Your task to perform on an android device: toggle airplane mode Image 0: 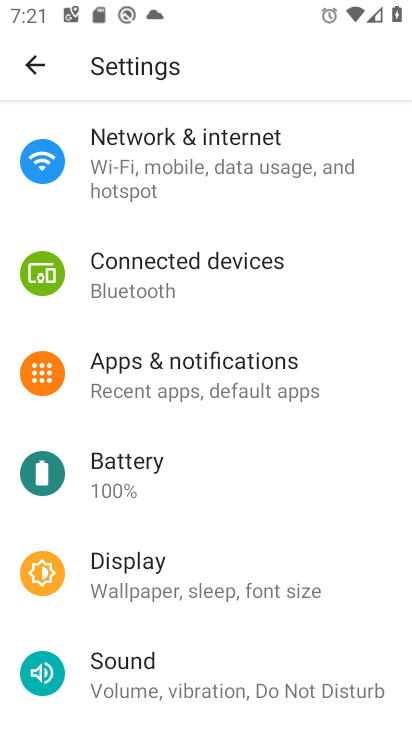
Step 0: drag from (257, 527) to (282, 314)
Your task to perform on an android device: toggle airplane mode Image 1: 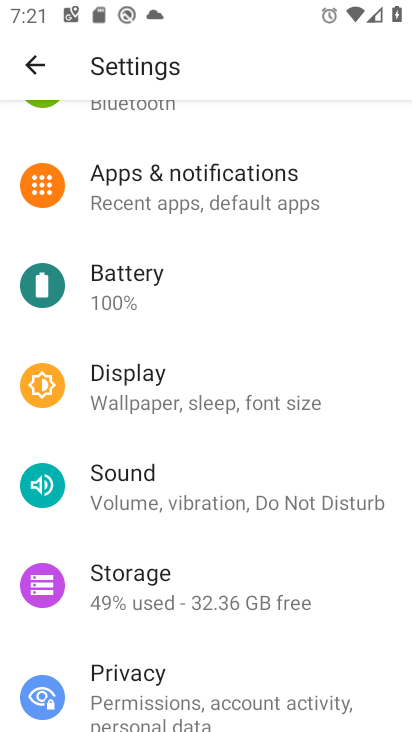
Step 1: drag from (274, 319) to (295, 659)
Your task to perform on an android device: toggle airplane mode Image 2: 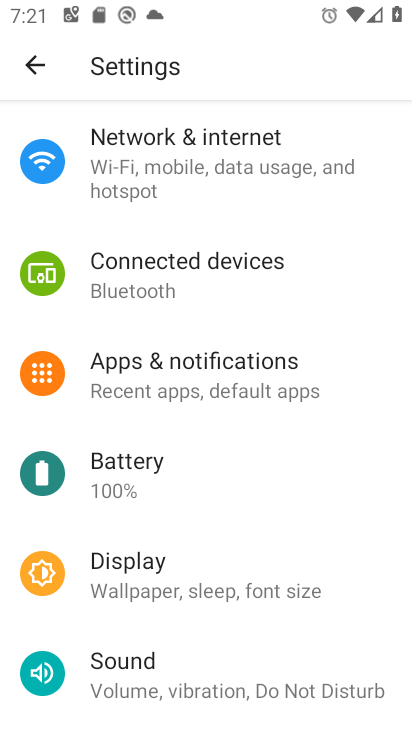
Step 2: click (238, 181)
Your task to perform on an android device: toggle airplane mode Image 3: 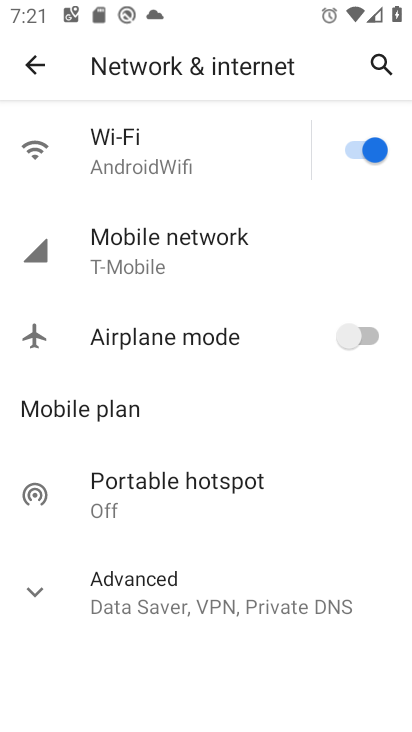
Step 3: click (272, 330)
Your task to perform on an android device: toggle airplane mode Image 4: 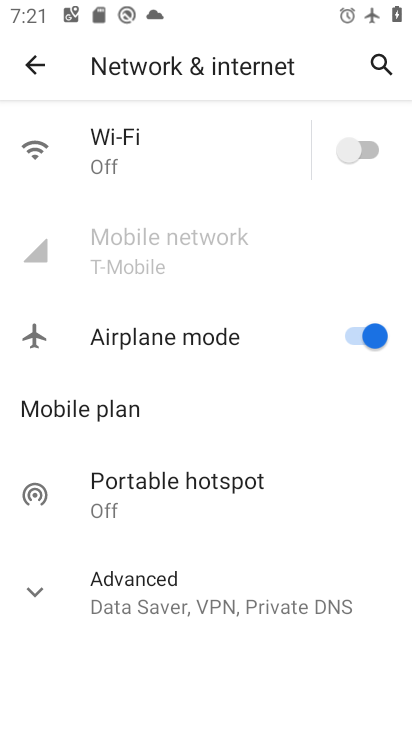
Step 4: task complete